Your task to perform on an android device: Open CNN.com Image 0: 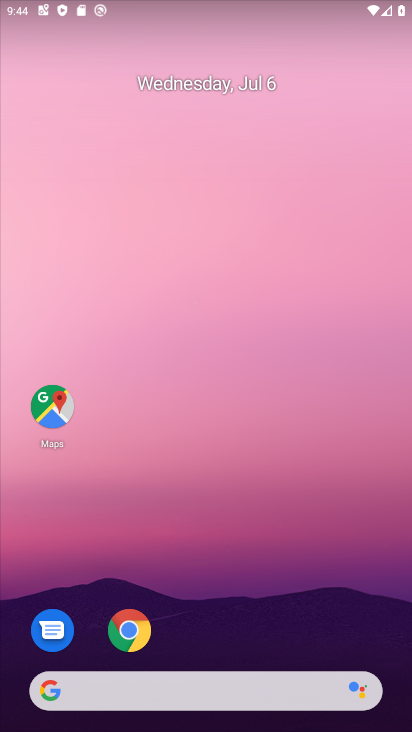
Step 0: click (126, 639)
Your task to perform on an android device: Open CNN.com Image 1: 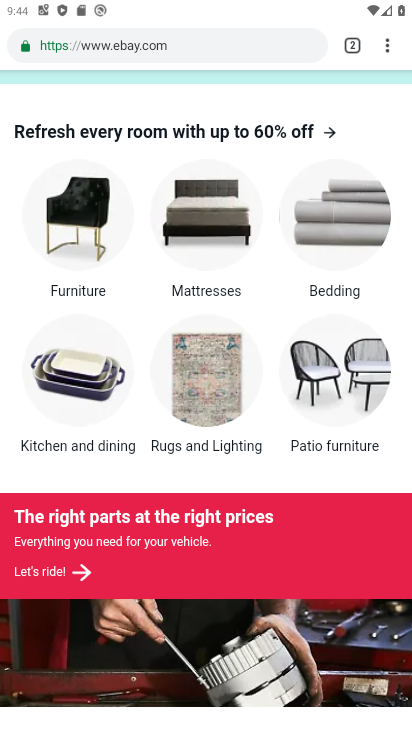
Step 1: click (205, 41)
Your task to perform on an android device: Open CNN.com Image 2: 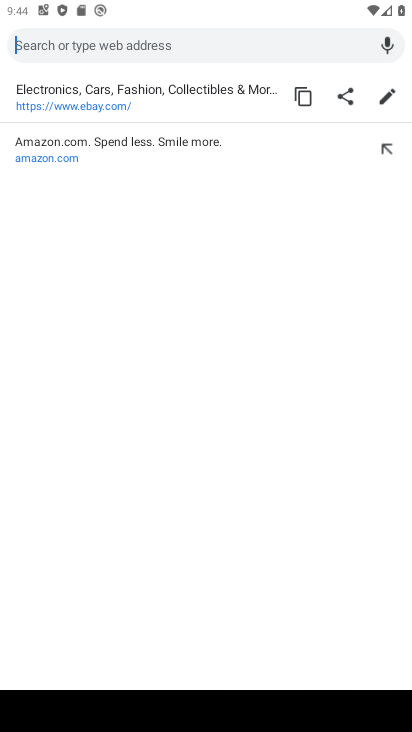
Step 2: type "cnn.com"
Your task to perform on an android device: Open CNN.com Image 3: 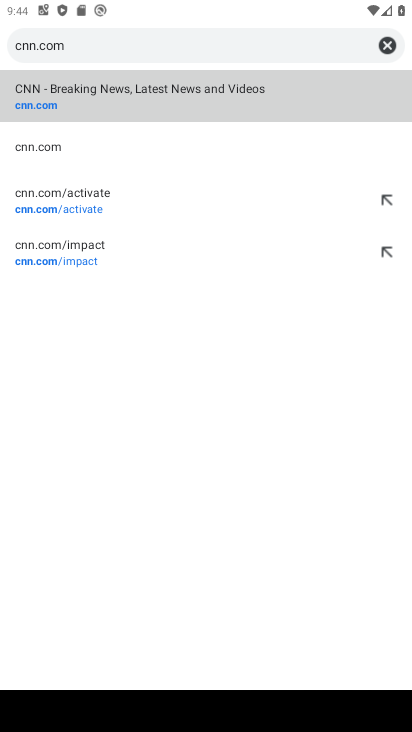
Step 3: click (49, 94)
Your task to perform on an android device: Open CNN.com Image 4: 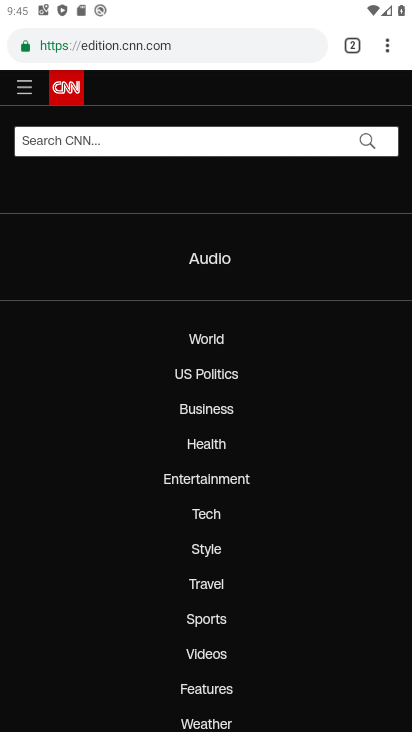
Step 4: task complete